Your task to perform on an android device: open app "Google Play services" Image 0: 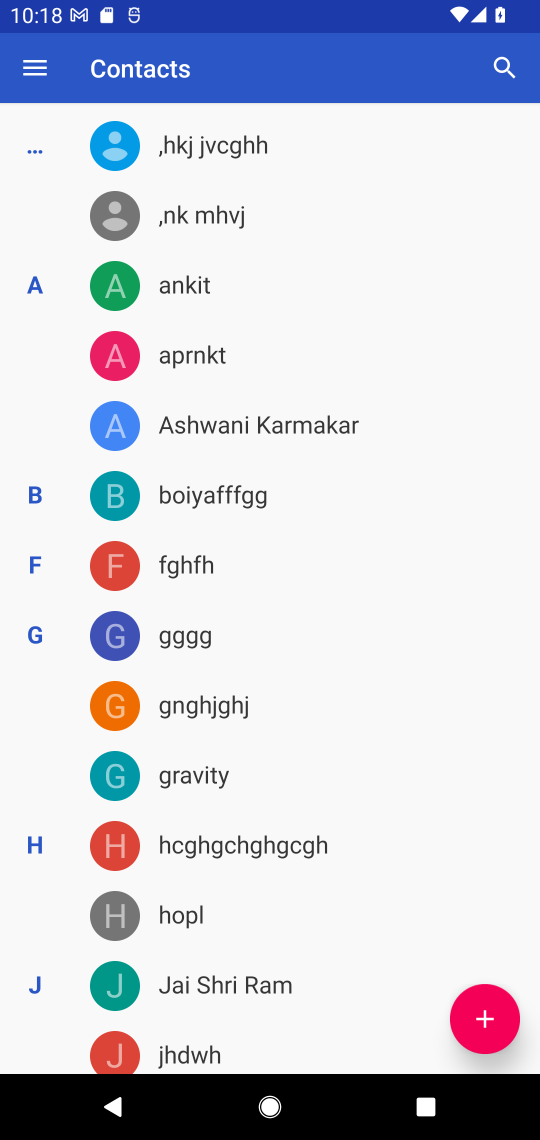
Step 0: task complete